Your task to perform on an android device: Search for "razer blackwidow" on walmart.com, select the first entry, and add it to the cart. Image 0: 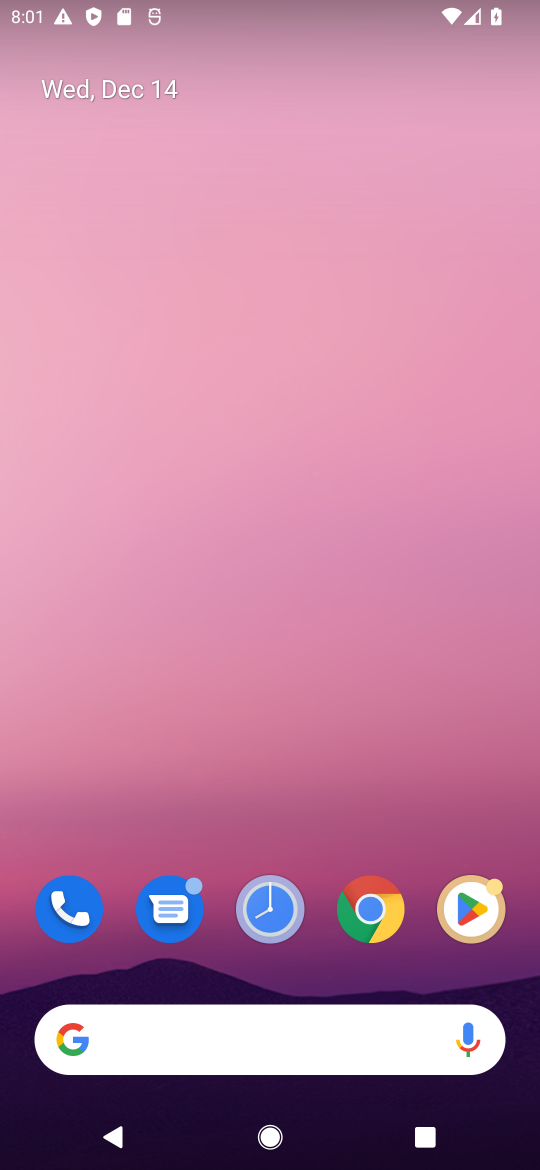
Step 0: click (377, 910)
Your task to perform on an android device: Search for "razer blackwidow" on walmart.com, select the first entry, and add it to the cart. Image 1: 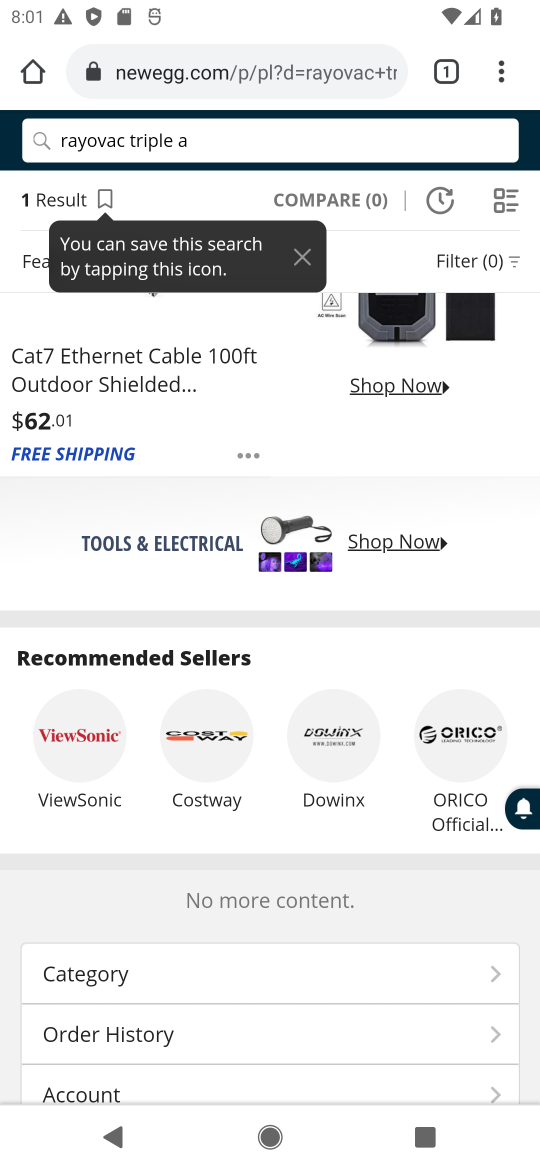
Step 1: click (177, 71)
Your task to perform on an android device: Search for "razer blackwidow" on walmart.com, select the first entry, and add it to the cart. Image 2: 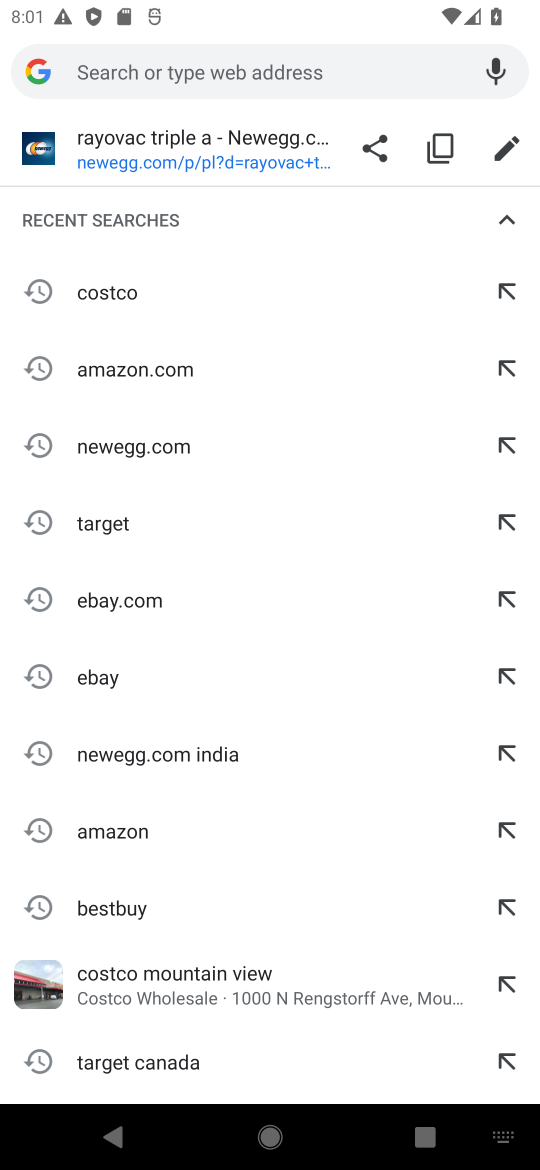
Step 2: type "walmart.com"
Your task to perform on an android device: Search for "razer blackwidow" on walmart.com, select the first entry, and add it to the cart. Image 3: 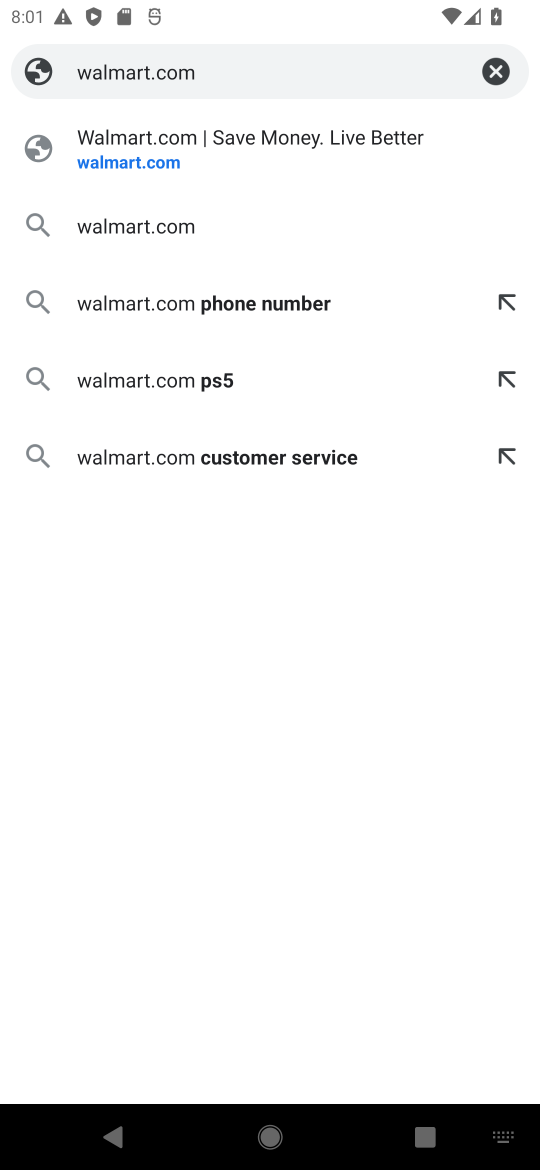
Step 3: click (102, 151)
Your task to perform on an android device: Search for "razer blackwidow" on walmart.com, select the first entry, and add it to the cart. Image 4: 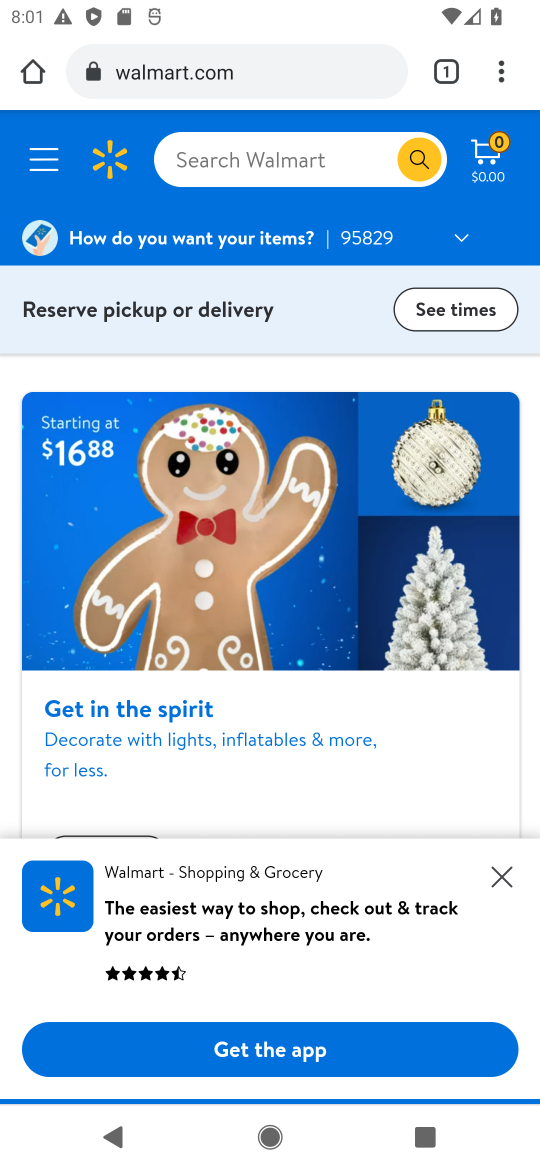
Step 4: click (279, 152)
Your task to perform on an android device: Search for "razer blackwidow" on walmart.com, select the first entry, and add it to the cart. Image 5: 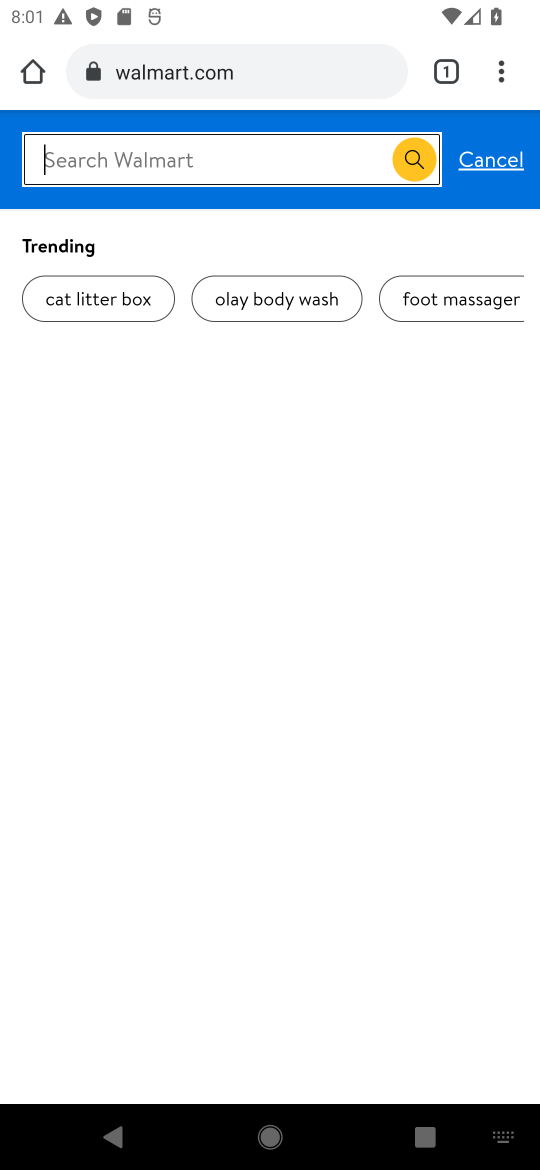
Step 5: type "razer blackwidow"
Your task to perform on an android device: Search for "razer blackwidow" on walmart.com, select the first entry, and add it to the cart. Image 6: 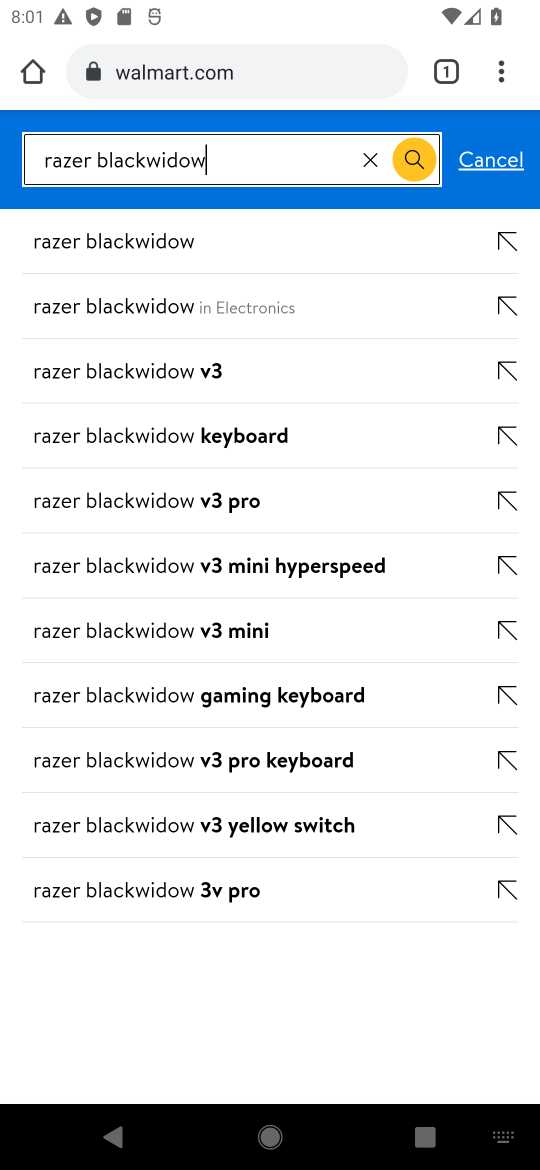
Step 6: press enter
Your task to perform on an android device: Search for "razer blackwidow" on walmart.com, select the first entry, and add it to the cart. Image 7: 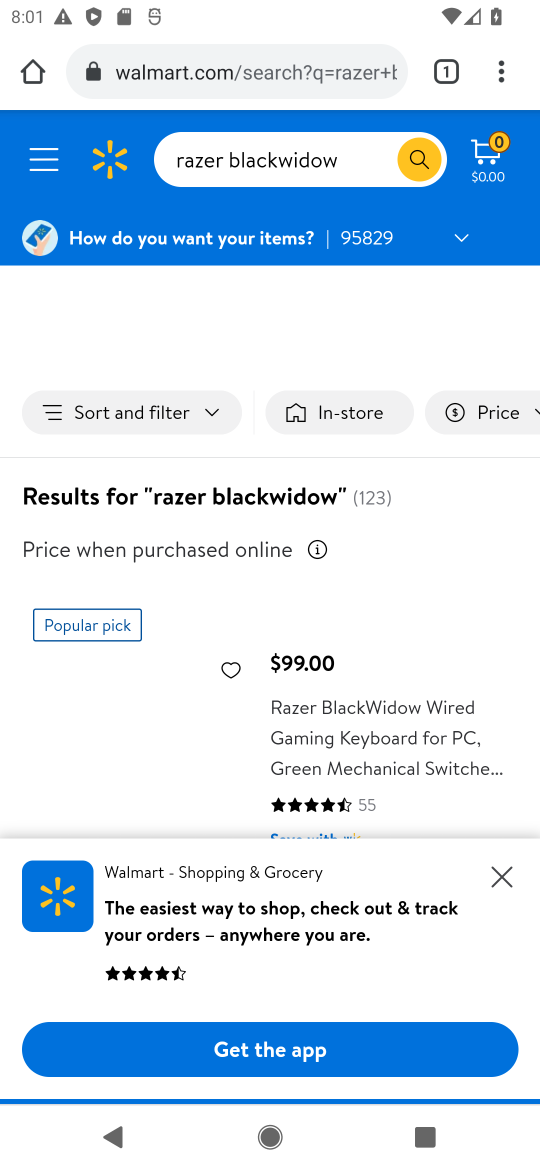
Step 7: click (493, 877)
Your task to perform on an android device: Search for "razer blackwidow" on walmart.com, select the first entry, and add it to the cart. Image 8: 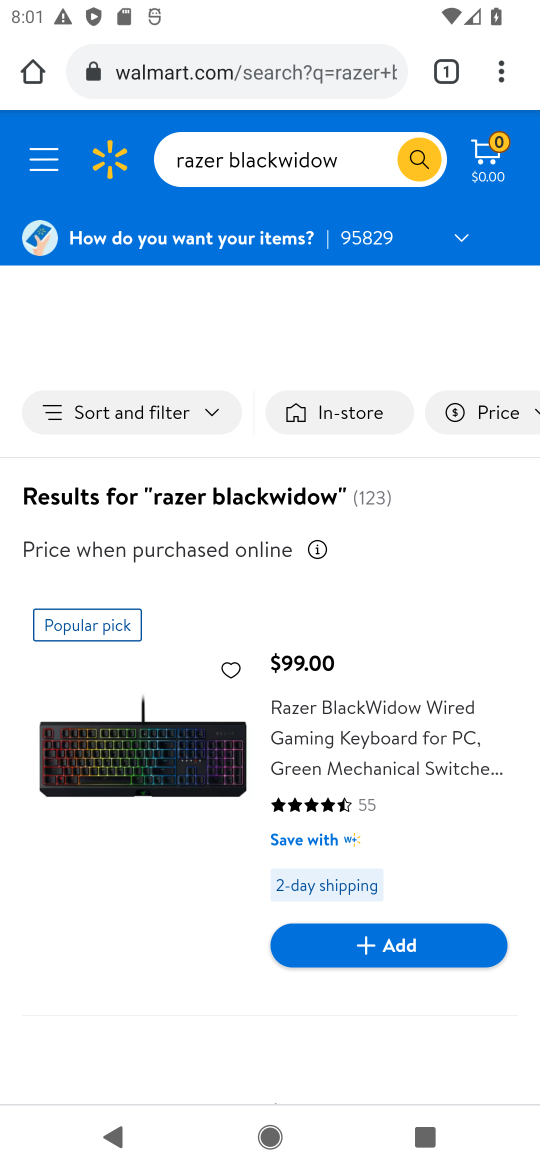
Step 8: click (403, 942)
Your task to perform on an android device: Search for "razer blackwidow" on walmart.com, select the first entry, and add it to the cart. Image 9: 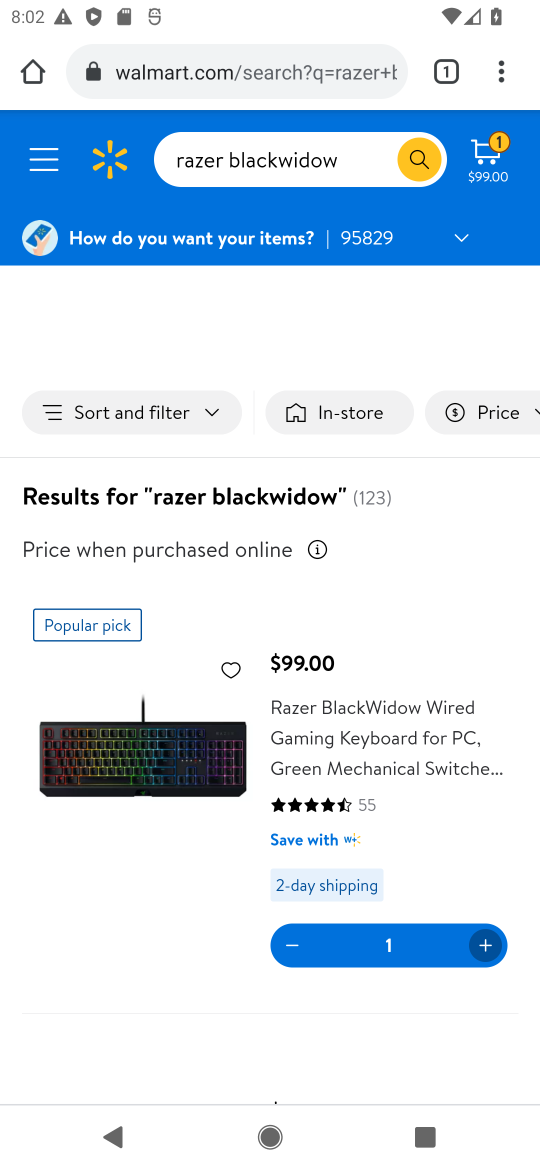
Step 9: task complete